Your task to perform on an android device: allow notifications from all sites in the chrome app Image 0: 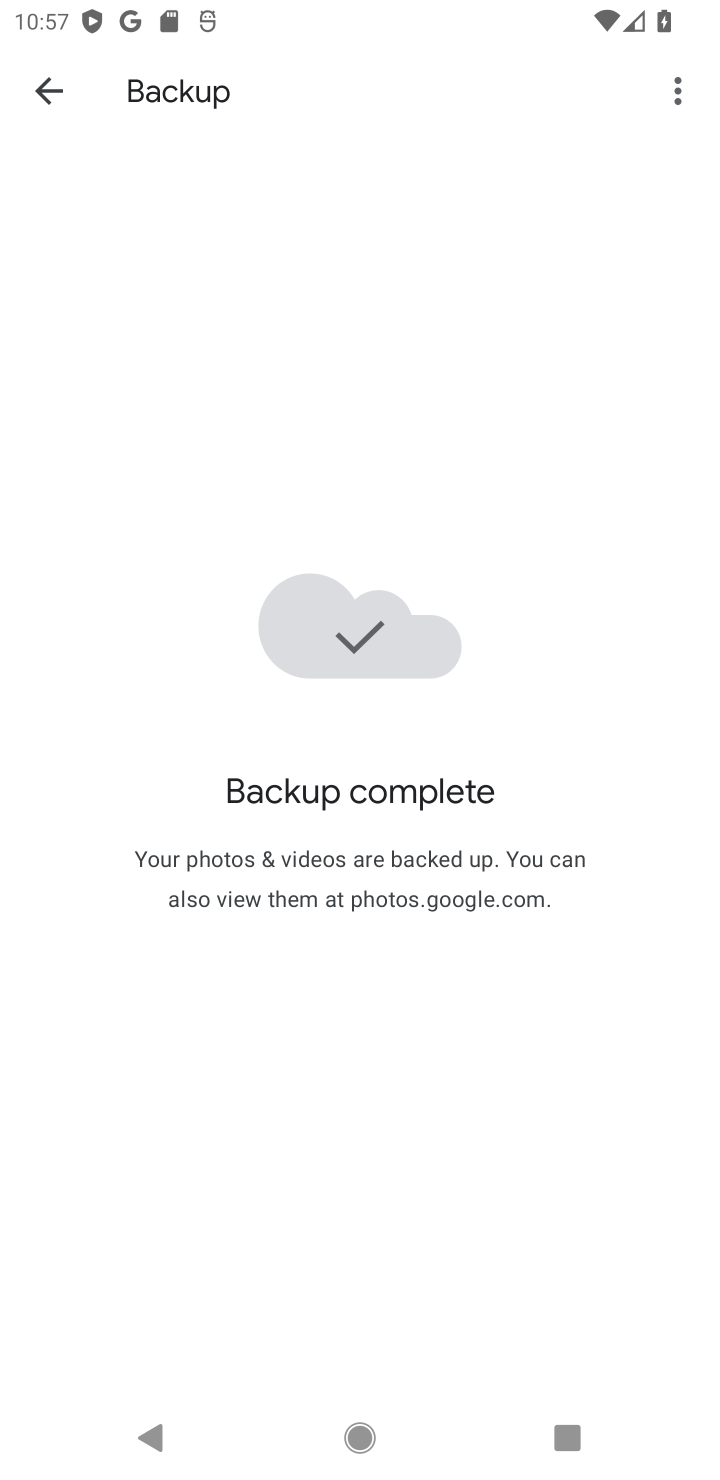
Step 0: click (375, 1429)
Your task to perform on an android device: allow notifications from all sites in the chrome app Image 1: 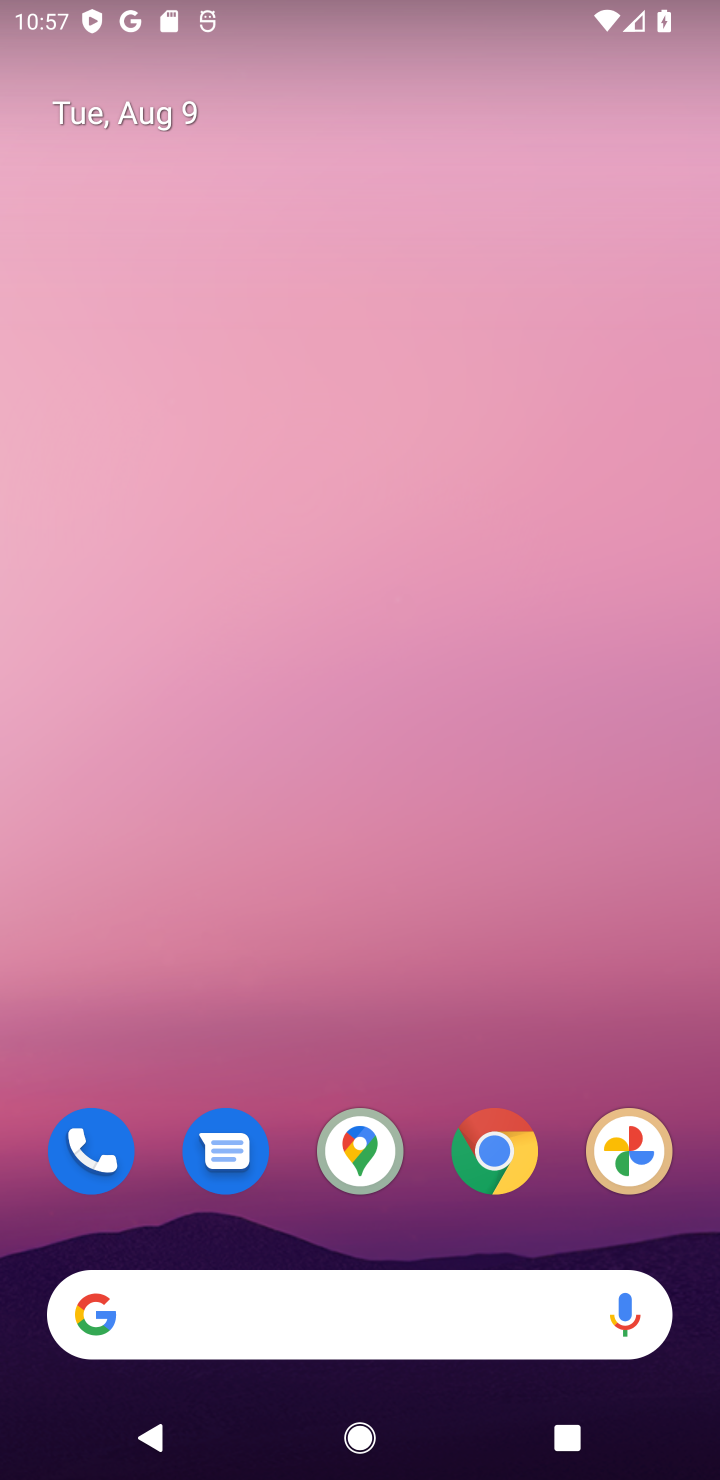
Step 1: click (490, 1169)
Your task to perform on an android device: allow notifications from all sites in the chrome app Image 2: 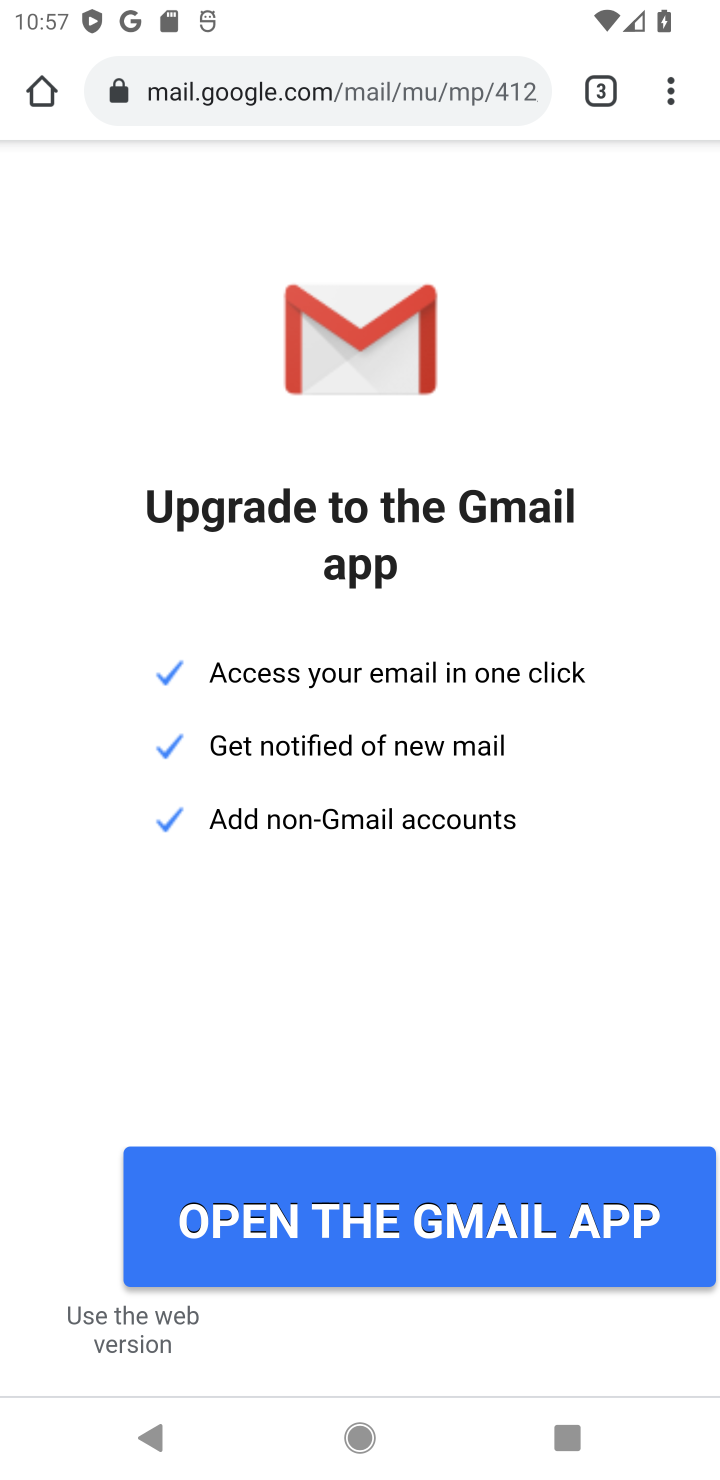
Step 2: click (666, 97)
Your task to perform on an android device: allow notifications from all sites in the chrome app Image 3: 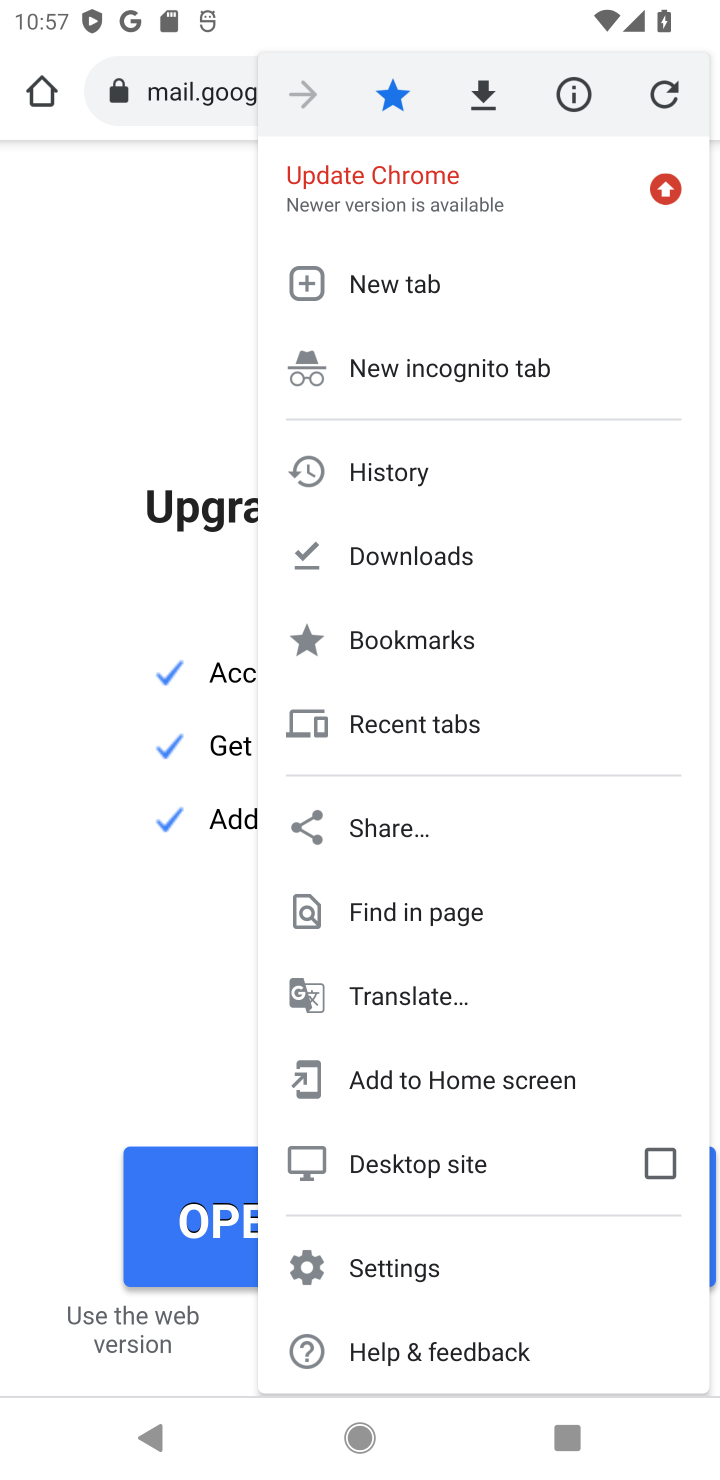
Step 3: click (398, 1264)
Your task to perform on an android device: allow notifications from all sites in the chrome app Image 4: 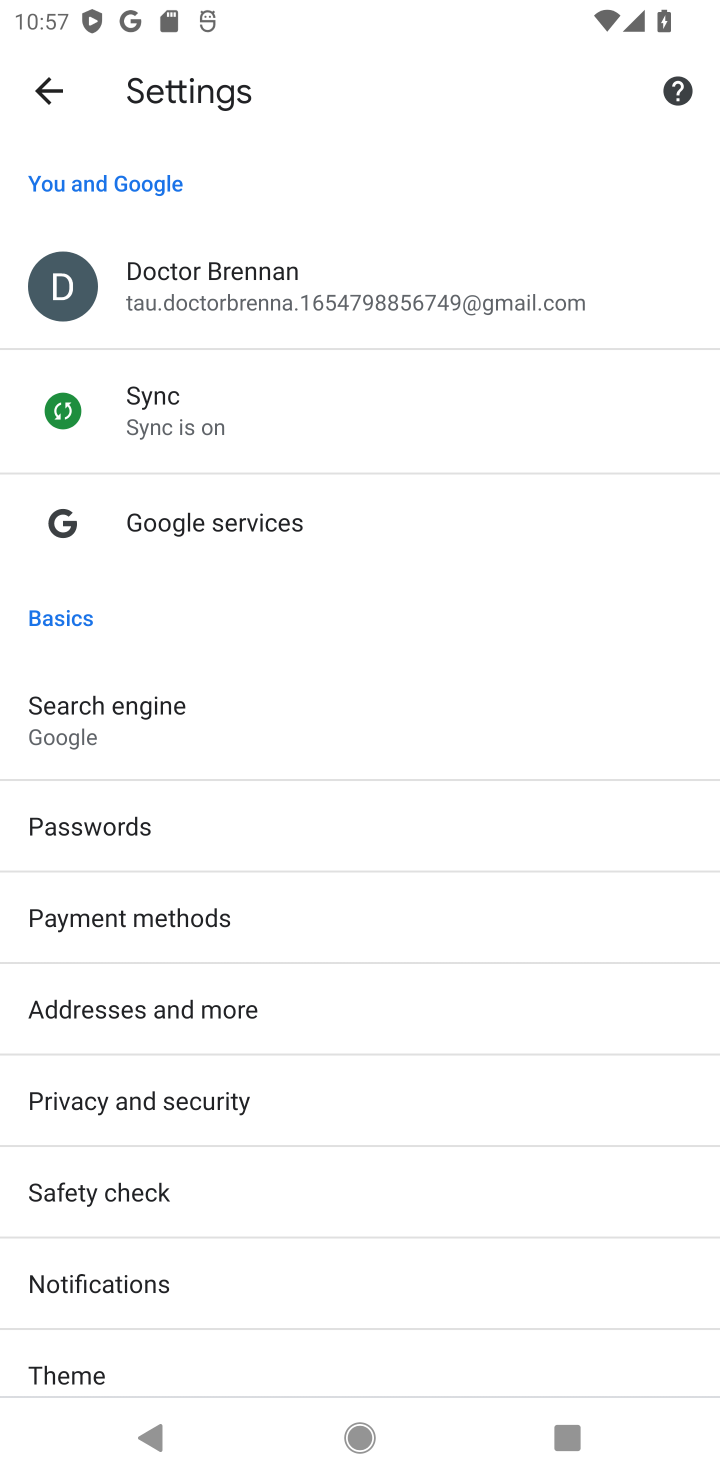
Step 4: drag from (420, 752) to (440, 437)
Your task to perform on an android device: allow notifications from all sites in the chrome app Image 5: 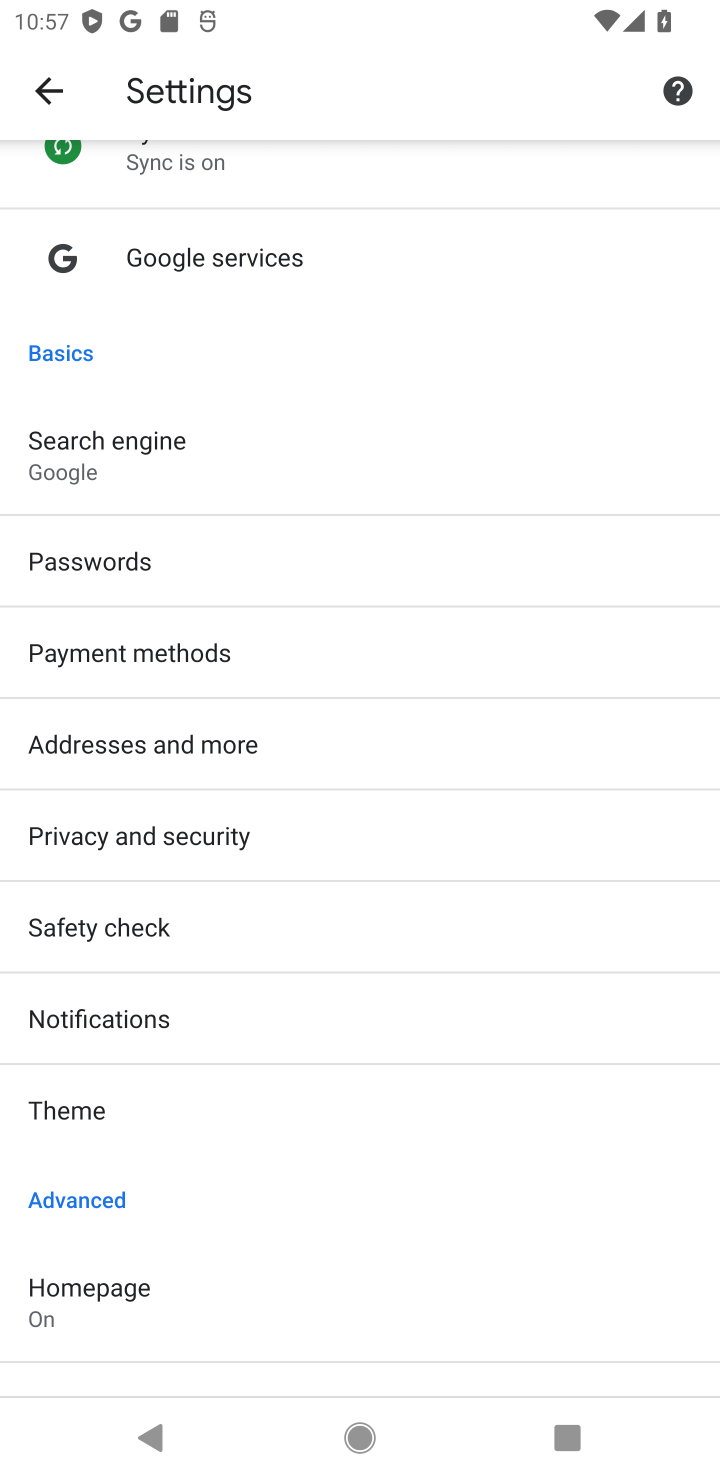
Step 5: click (174, 1008)
Your task to perform on an android device: allow notifications from all sites in the chrome app Image 6: 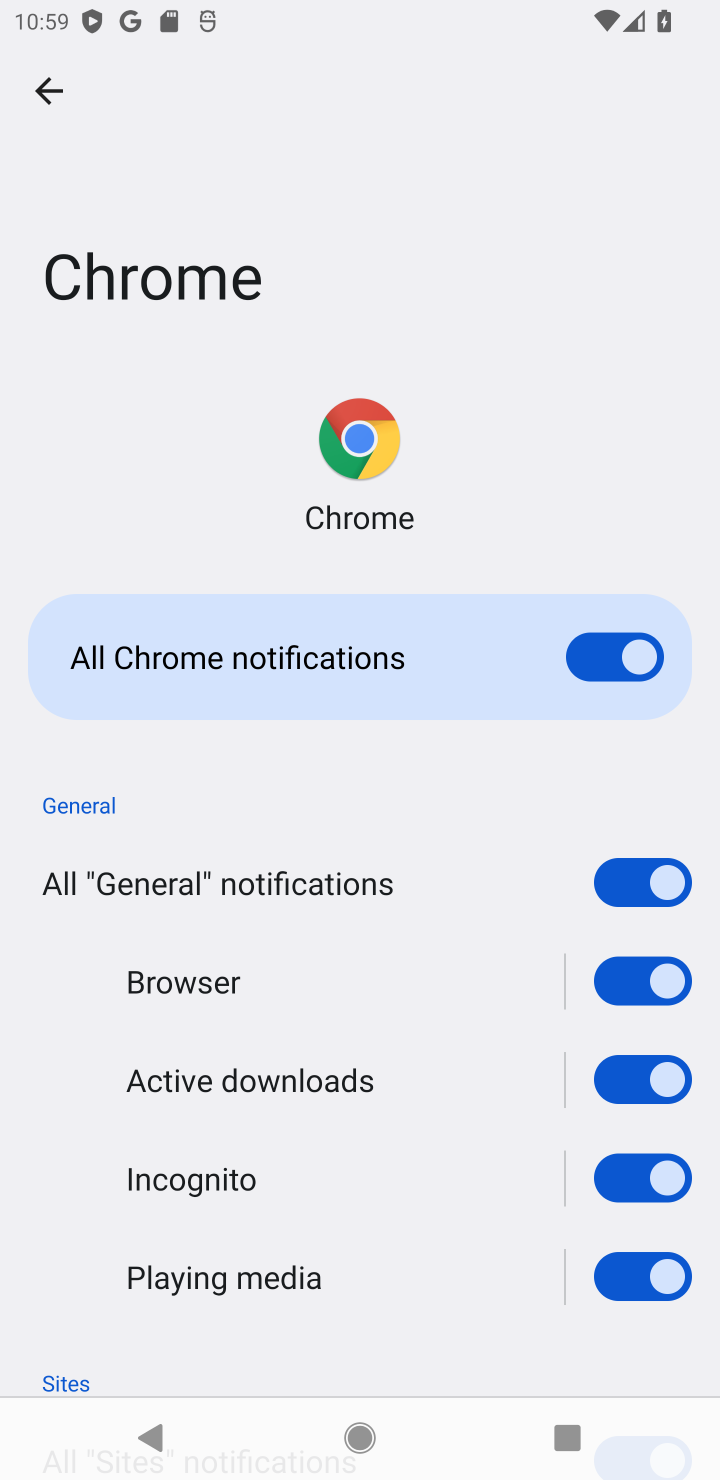
Step 6: task complete